Your task to perform on an android device: turn on javascript in the chrome app Image 0: 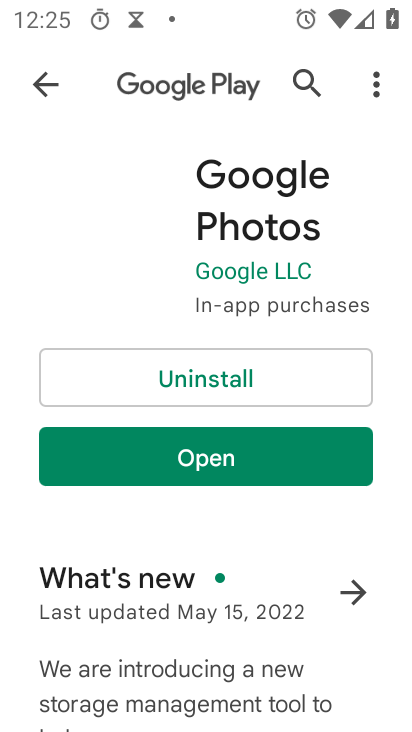
Step 0: press home button
Your task to perform on an android device: turn on javascript in the chrome app Image 1: 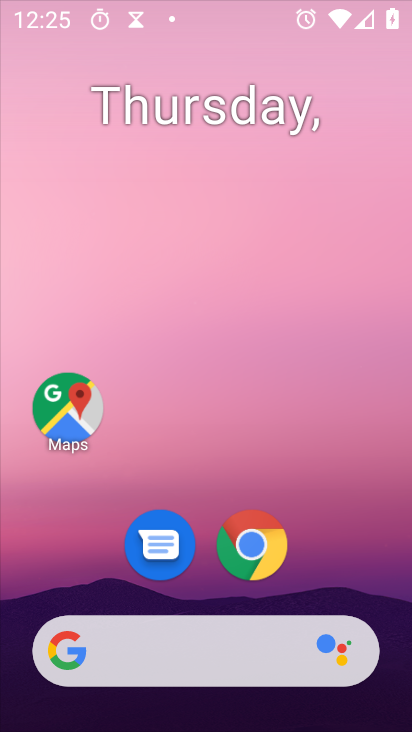
Step 1: press home button
Your task to perform on an android device: turn on javascript in the chrome app Image 2: 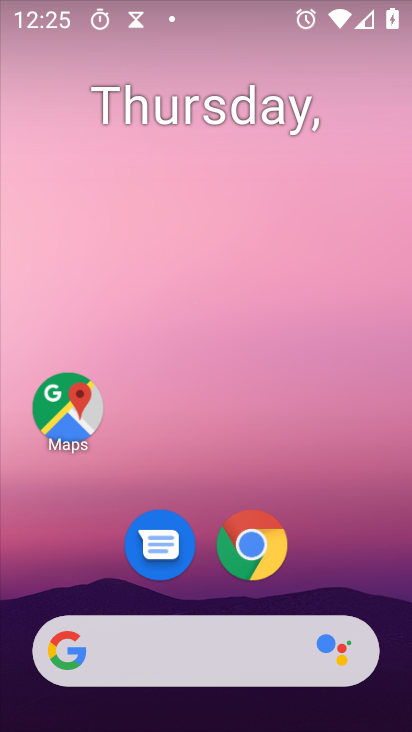
Step 2: drag from (138, 647) to (262, 278)
Your task to perform on an android device: turn on javascript in the chrome app Image 3: 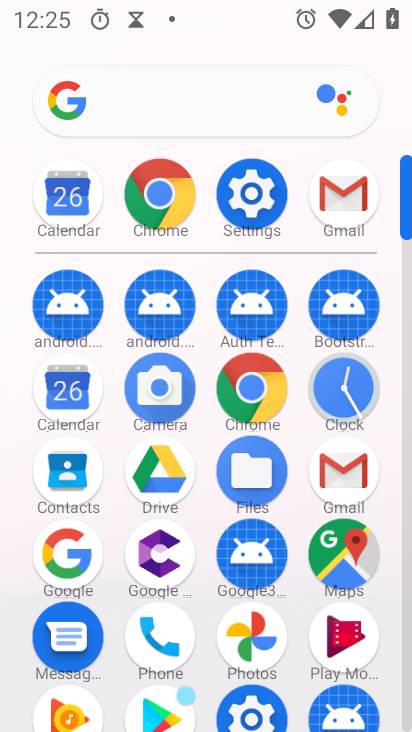
Step 3: click (150, 197)
Your task to perform on an android device: turn on javascript in the chrome app Image 4: 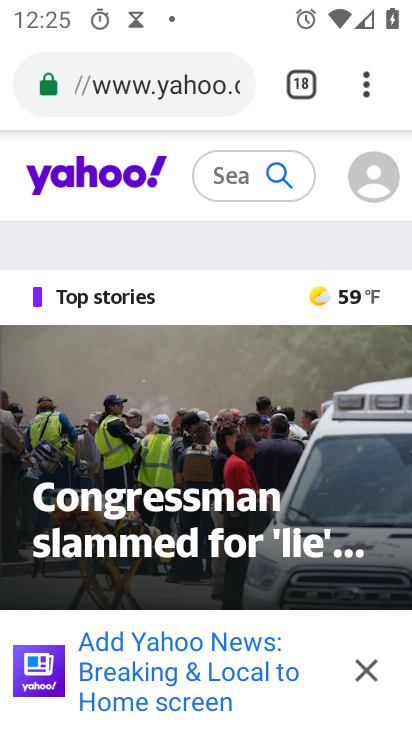
Step 4: drag from (367, 93) to (207, 607)
Your task to perform on an android device: turn on javascript in the chrome app Image 5: 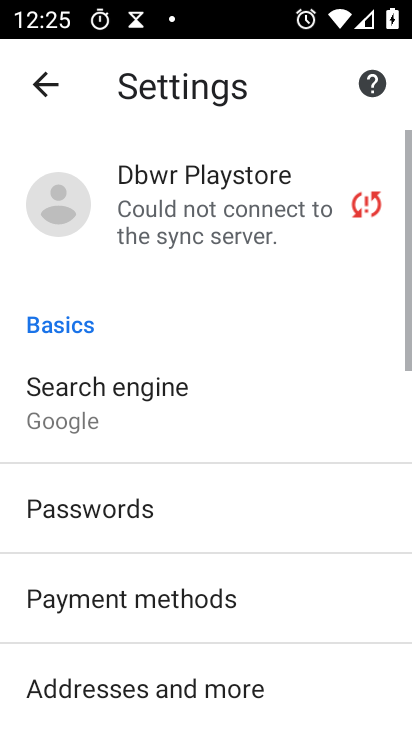
Step 5: drag from (184, 657) to (281, 89)
Your task to perform on an android device: turn on javascript in the chrome app Image 6: 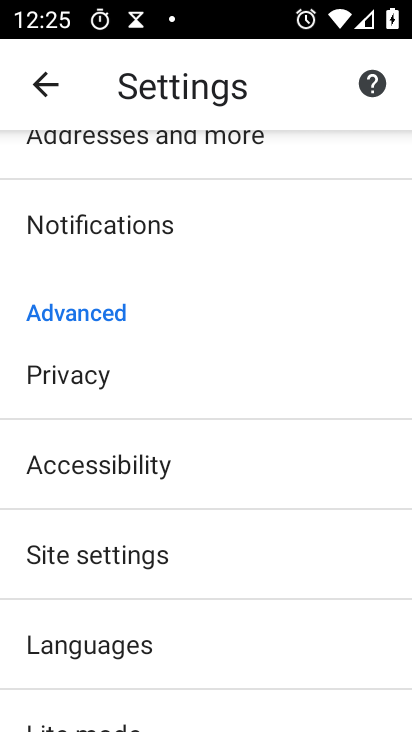
Step 6: click (137, 561)
Your task to perform on an android device: turn on javascript in the chrome app Image 7: 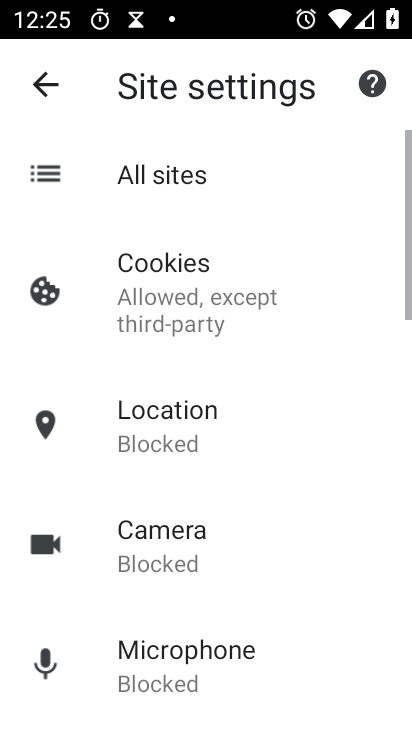
Step 7: drag from (247, 618) to (313, 285)
Your task to perform on an android device: turn on javascript in the chrome app Image 8: 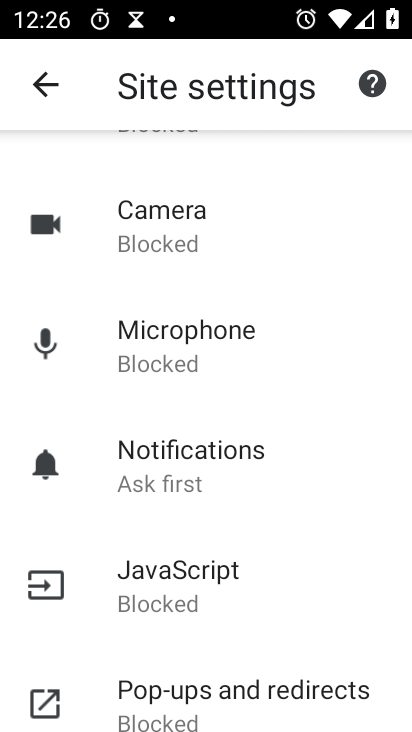
Step 8: click (185, 576)
Your task to perform on an android device: turn on javascript in the chrome app Image 9: 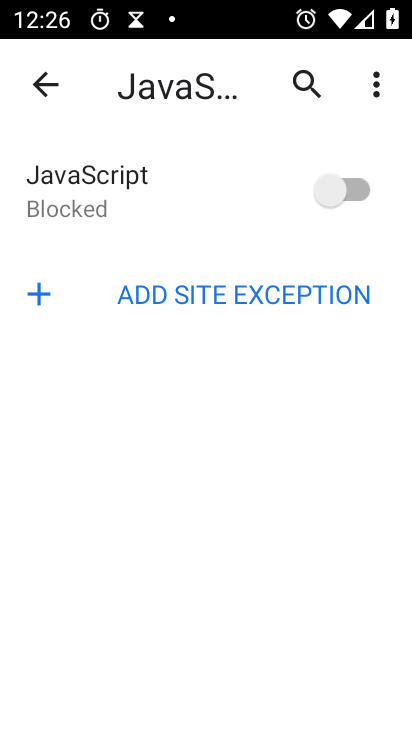
Step 9: click (347, 190)
Your task to perform on an android device: turn on javascript in the chrome app Image 10: 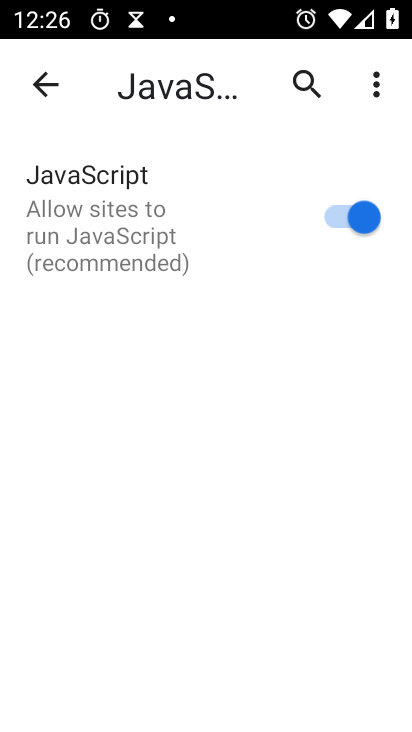
Step 10: task complete